Your task to perform on an android device: change the upload size in google photos Image 0: 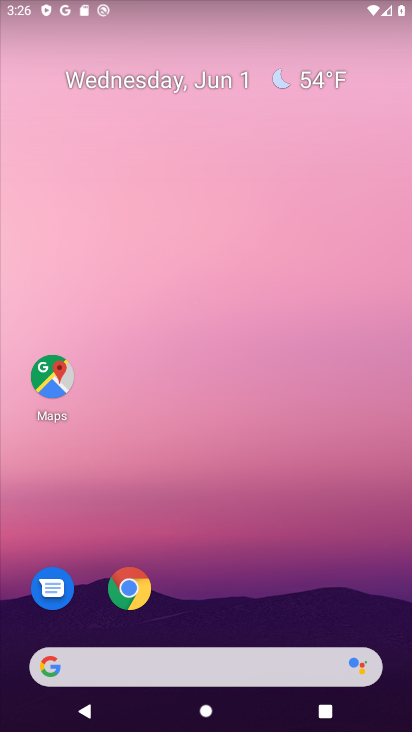
Step 0: drag from (208, 603) to (215, 171)
Your task to perform on an android device: change the upload size in google photos Image 1: 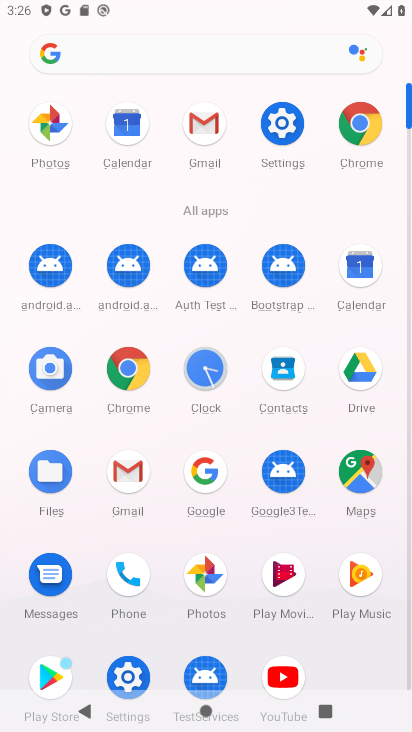
Step 1: click (204, 580)
Your task to perform on an android device: change the upload size in google photos Image 2: 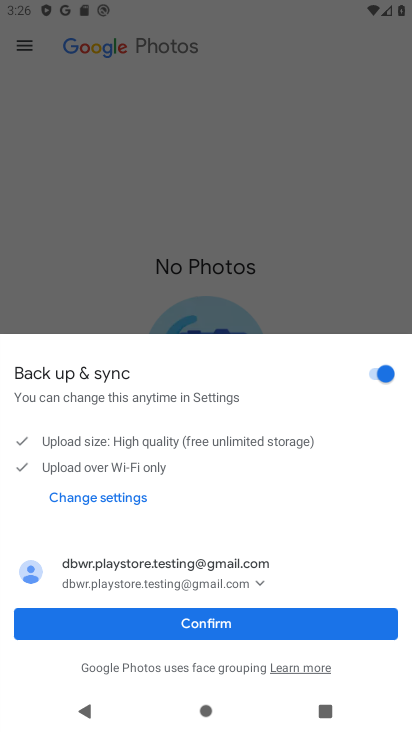
Step 2: click (196, 626)
Your task to perform on an android device: change the upload size in google photos Image 3: 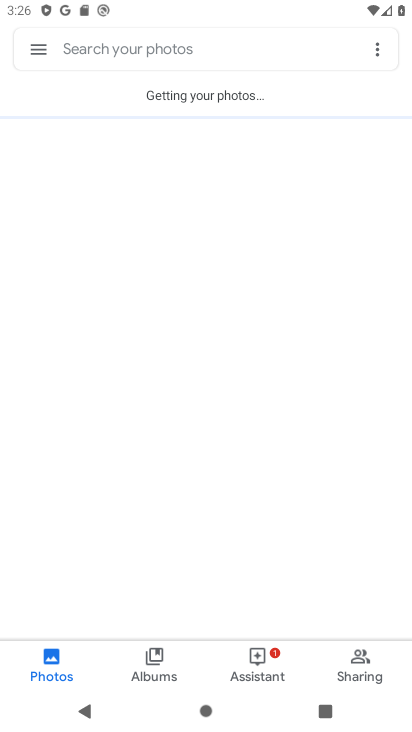
Step 3: click (28, 51)
Your task to perform on an android device: change the upload size in google photos Image 4: 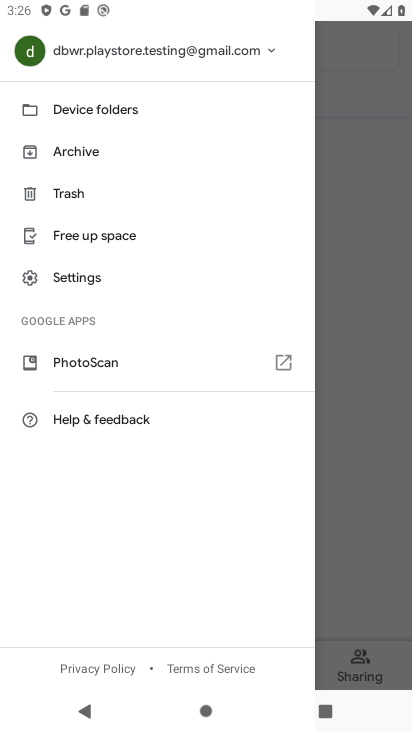
Step 4: click (91, 278)
Your task to perform on an android device: change the upload size in google photos Image 5: 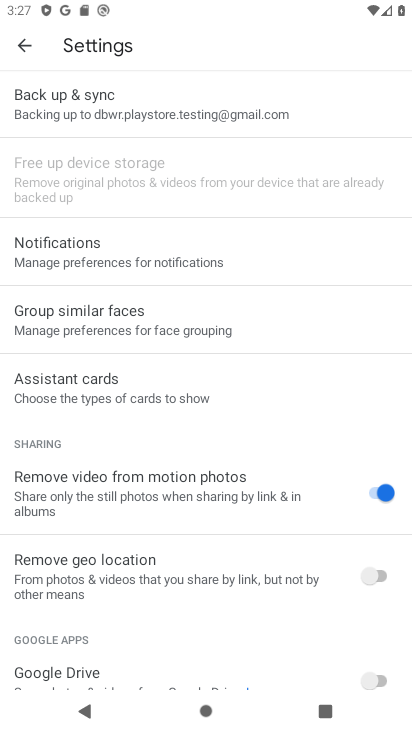
Step 5: click (76, 96)
Your task to perform on an android device: change the upload size in google photos Image 6: 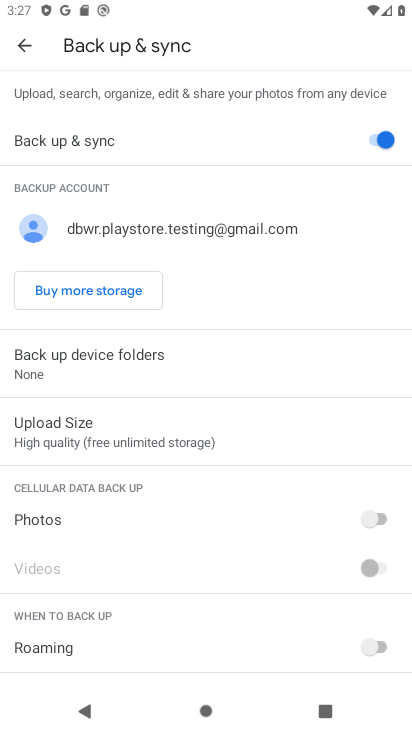
Step 6: click (120, 435)
Your task to perform on an android device: change the upload size in google photos Image 7: 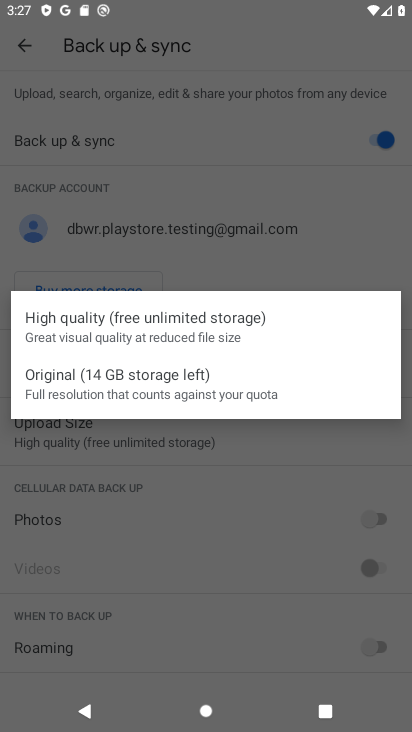
Step 7: click (85, 380)
Your task to perform on an android device: change the upload size in google photos Image 8: 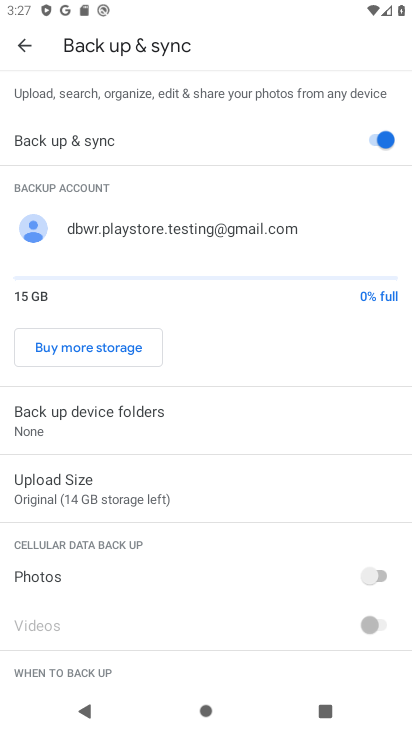
Step 8: task complete